Your task to perform on an android device: turn off improve location accuracy Image 0: 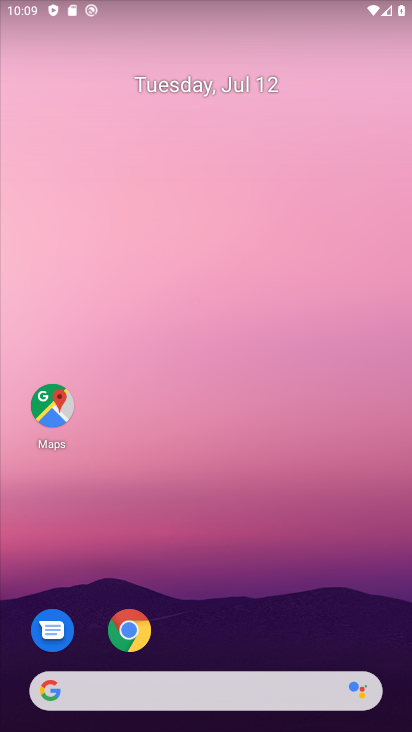
Step 0: drag from (248, 620) to (247, 91)
Your task to perform on an android device: turn off improve location accuracy Image 1: 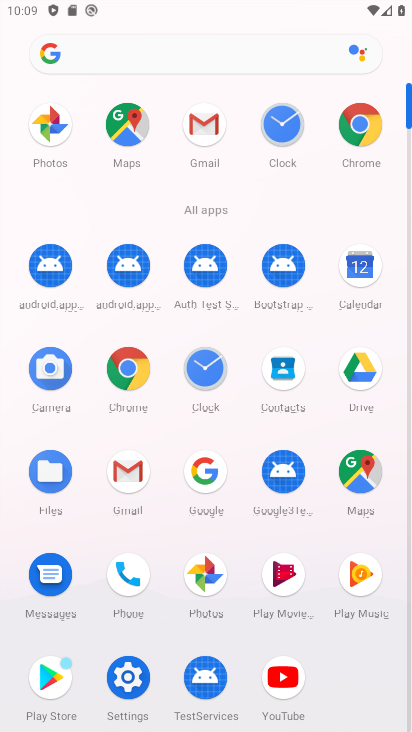
Step 1: click (127, 675)
Your task to perform on an android device: turn off improve location accuracy Image 2: 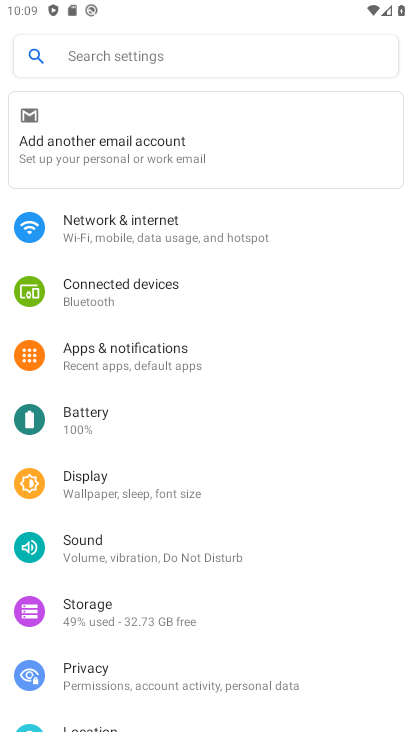
Step 2: drag from (131, 592) to (160, 274)
Your task to perform on an android device: turn off improve location accuracy Image 3: 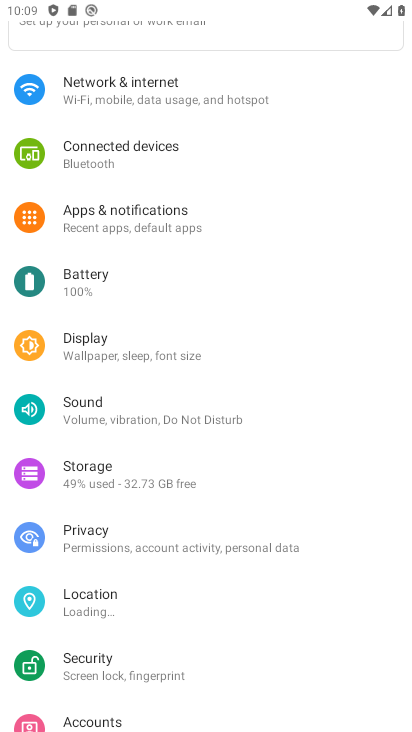
Step 3: click (129, 600)
Your task to perform on an android device: turn off improve location accuracy Image 4: 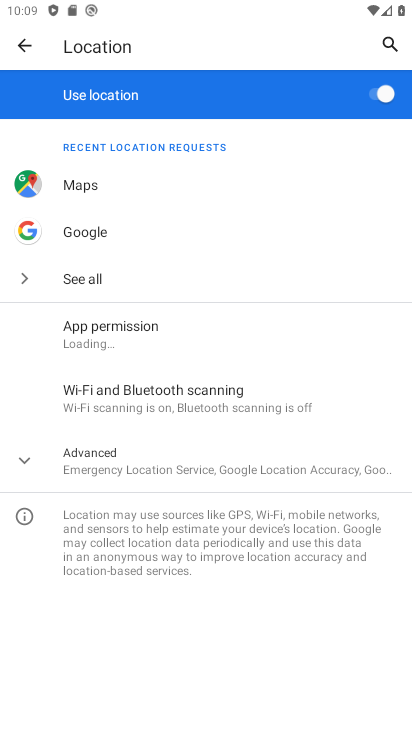
Step 4: click (97, 455)
Your task to perform on an android device: turn off improve location accuracy Image 5: 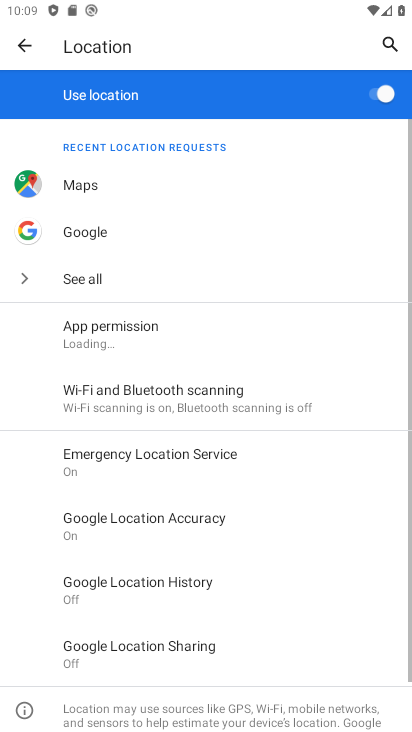
Step 5: click (187, 534)
Your task to perform on an android device: turn off improve location accuracy Image 6: 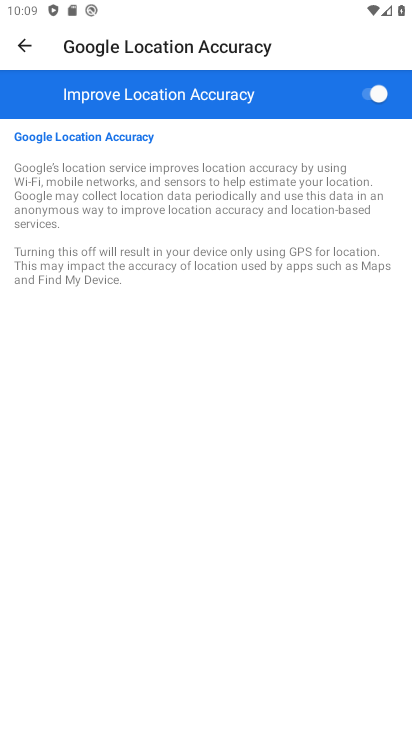
Step 6: click (380, 98)
Your task to perform on an android device: turn off improve location accuracy Image 7: 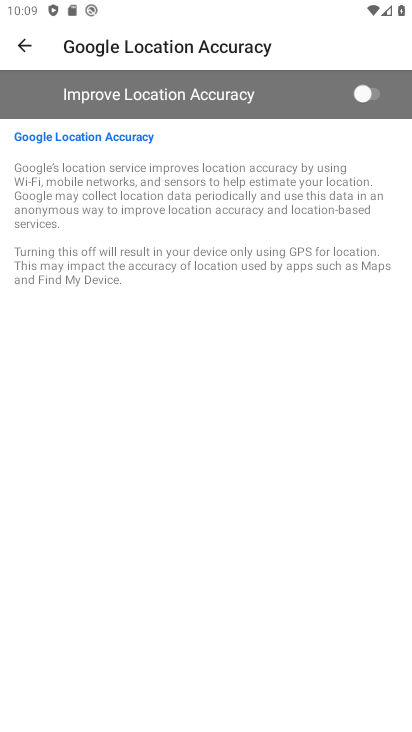
Step 7: task complete